Your task to perform on an android device: clear all cookies in the chrome app Image 0: 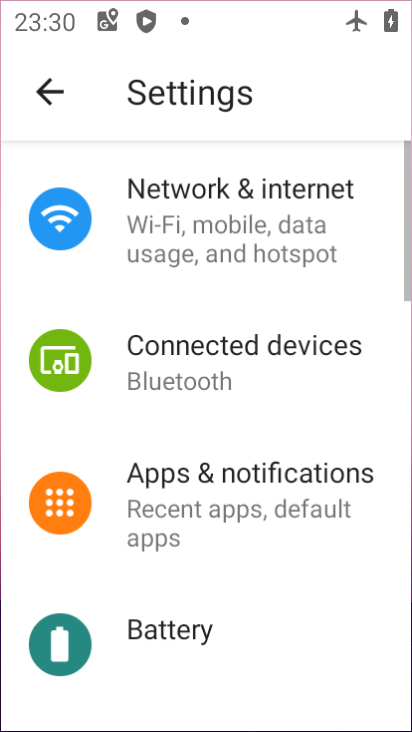
Step 0: task complete